Your task to perform on an android device: Open Google Maps and go to "Timeline" Image 0: 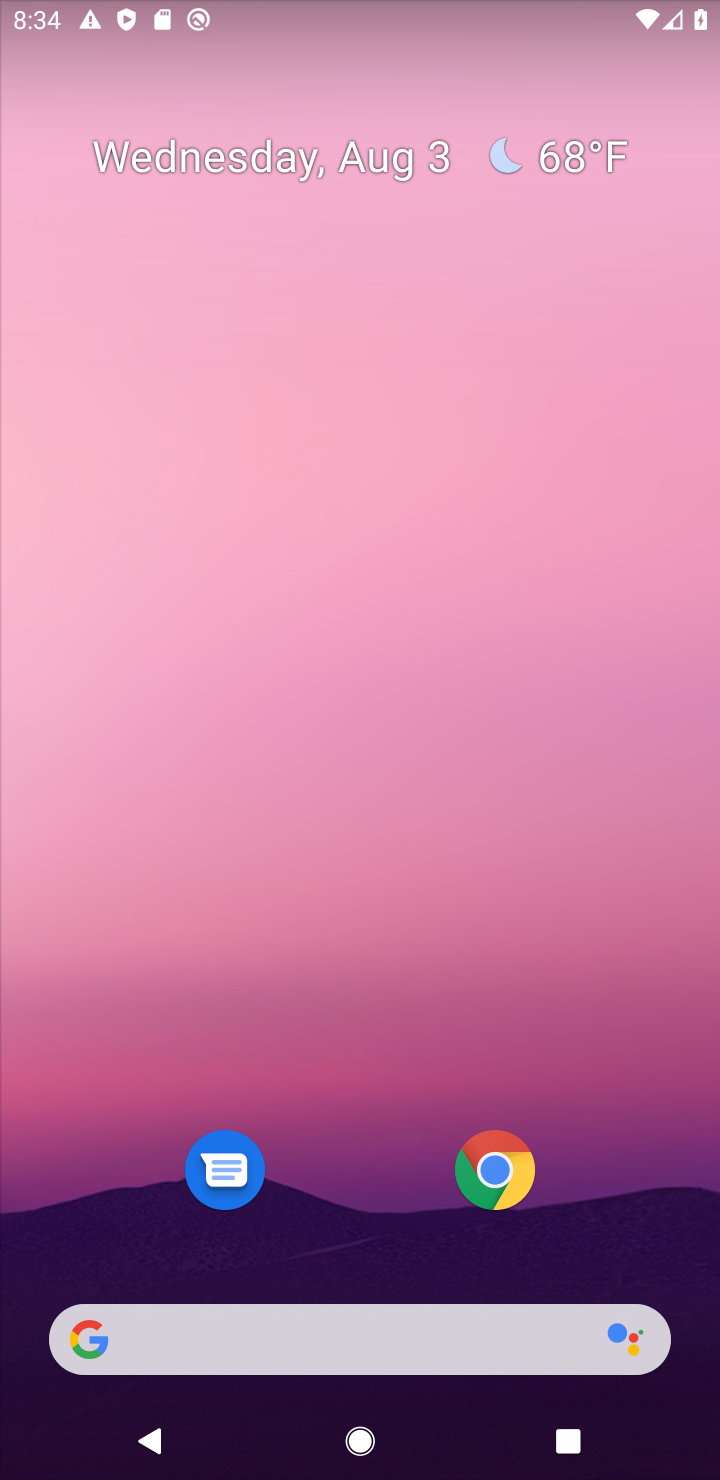
Step 0: drag from (622, 1232) to (577, 283)
Your task to perform on an android device: Open Google Maps and go to "Timeline" Image 1: 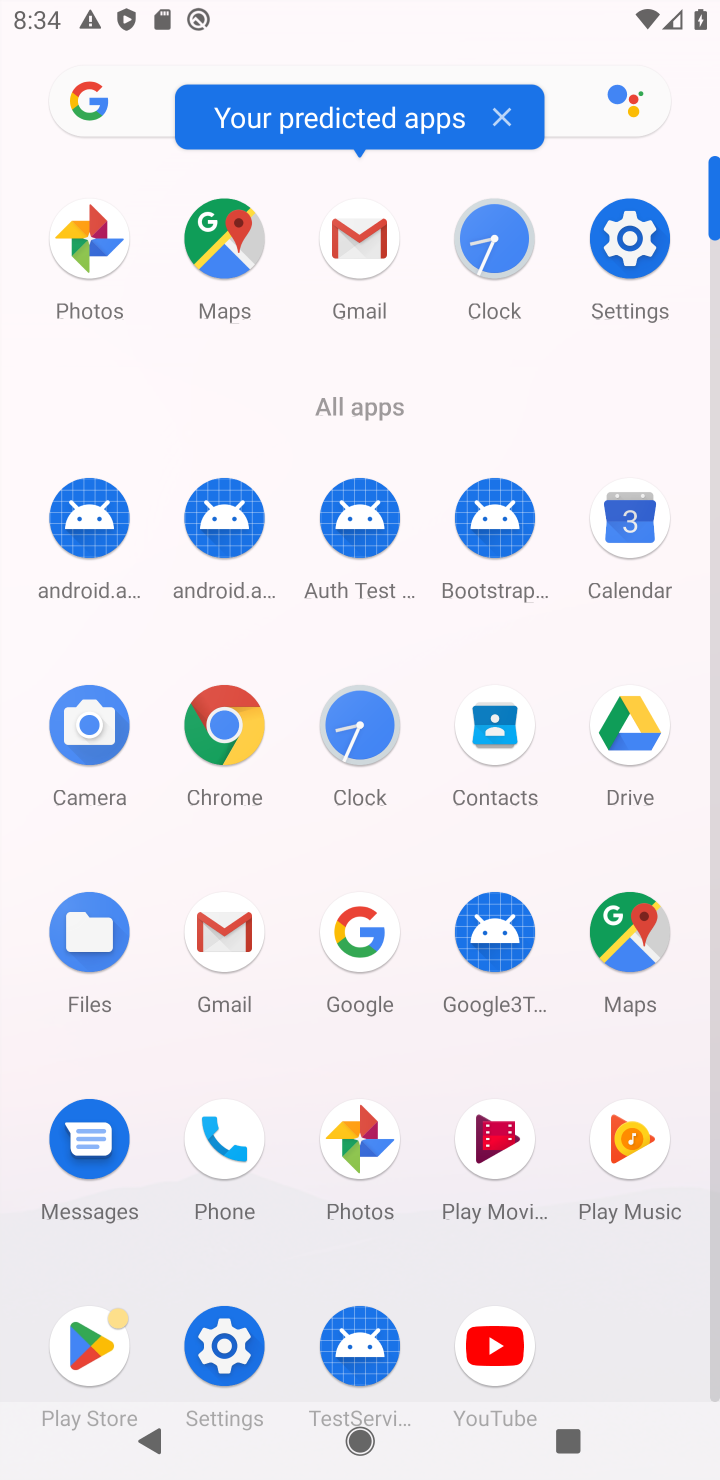
Step 1: click (619, 926)
Your task to perform on an android device: Open Google Maps and go to "Timeline" Image 2: 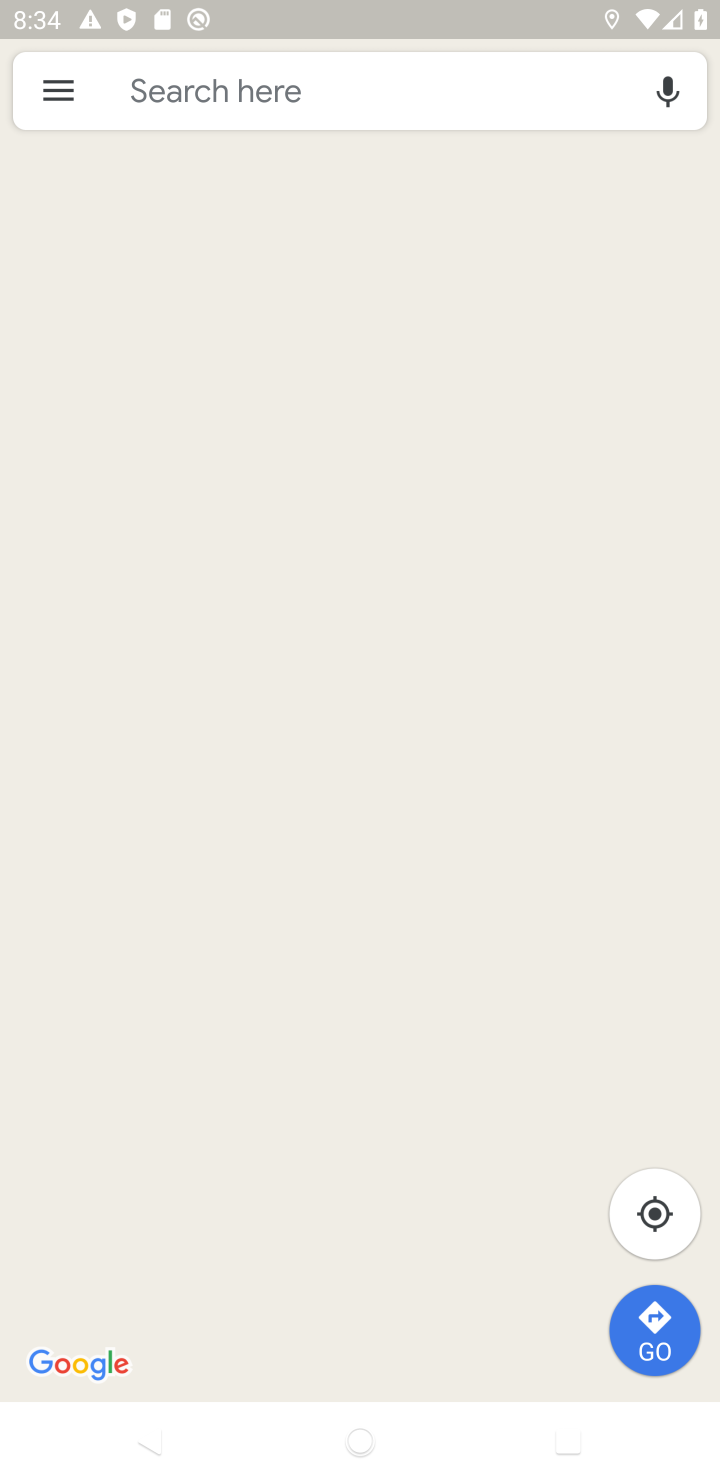
Step 2: click (47, 93)
Your task to perform on an android device: Open Google Maps and go to "Timeline" Image 3: 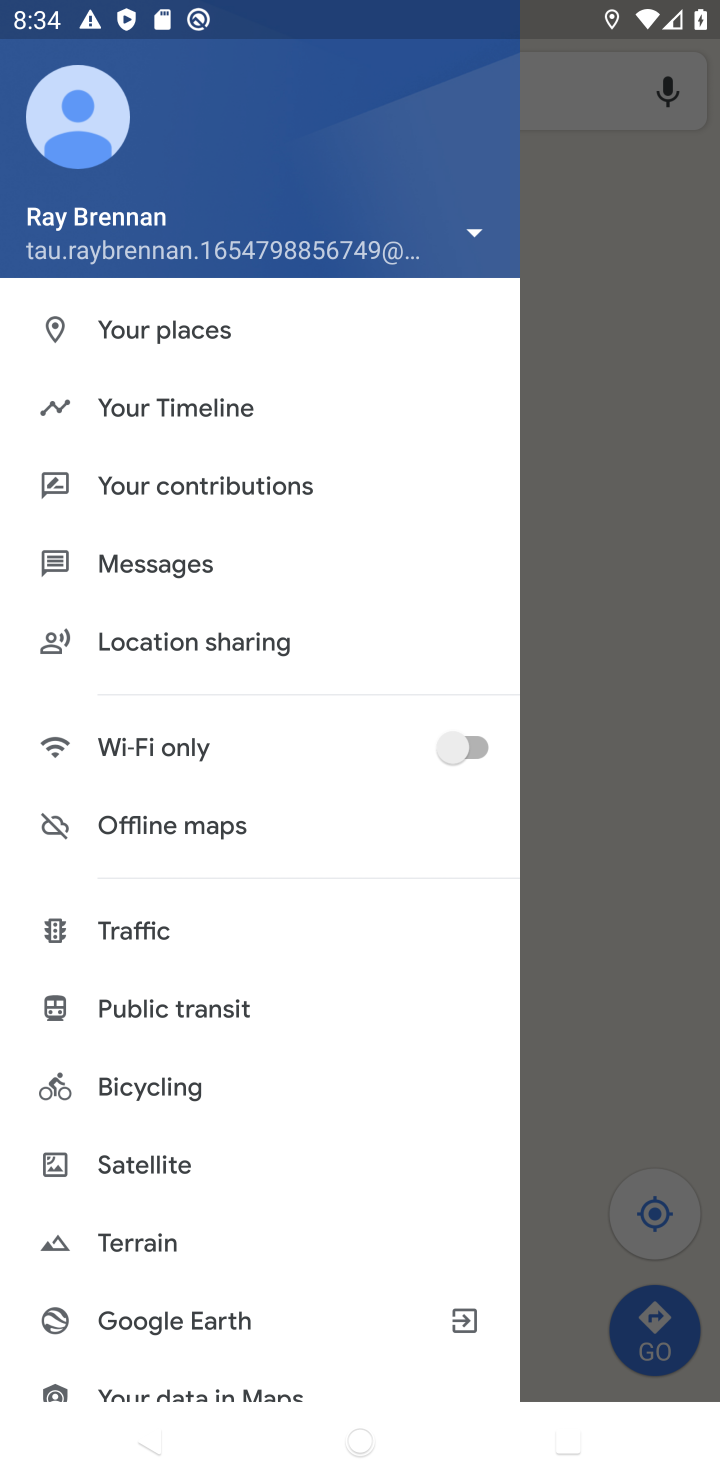
Step 3: click (180, 405)
Your task to perform on an android device: Open Google Maps and go to "Timeline" Image 4: 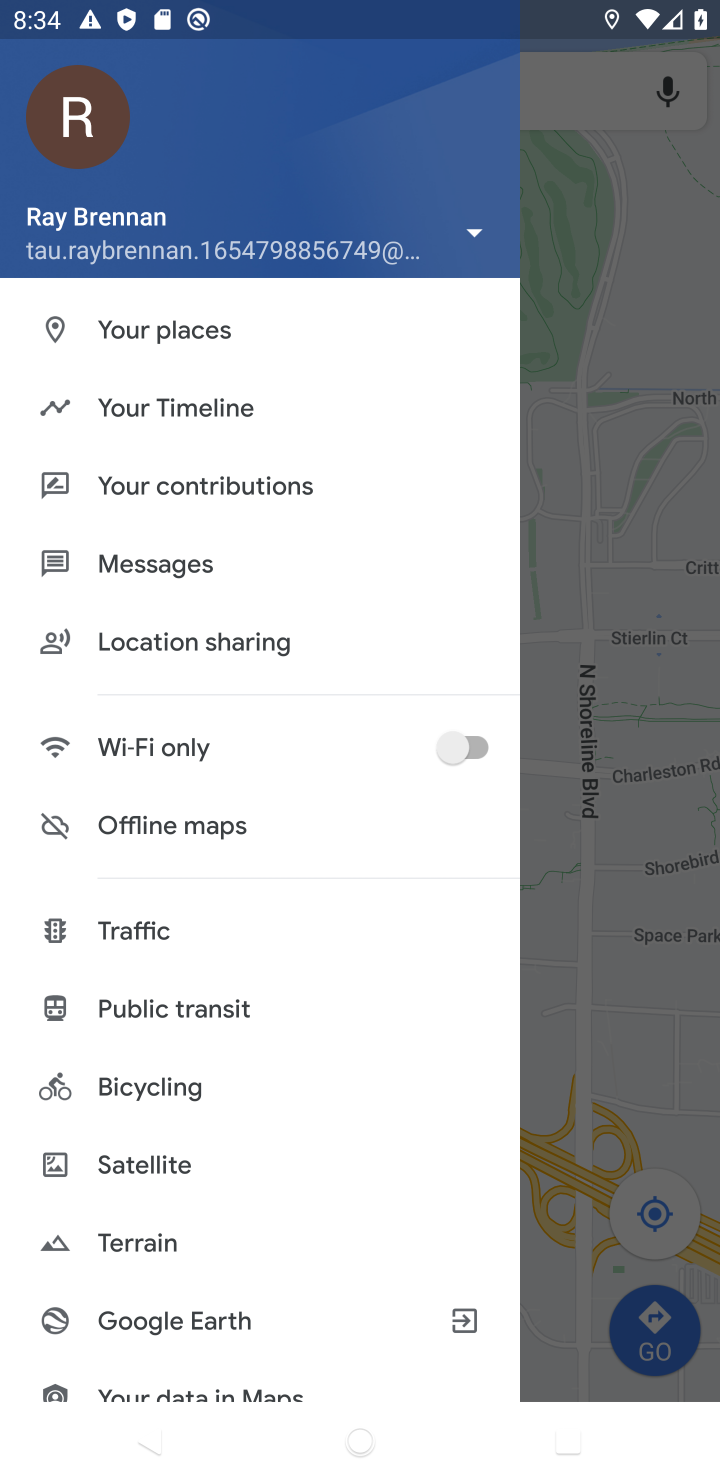
Step 4: click (190, 409)
Your task to perform on an android device: Open Google Maps and go to "Timeline" Image 5: 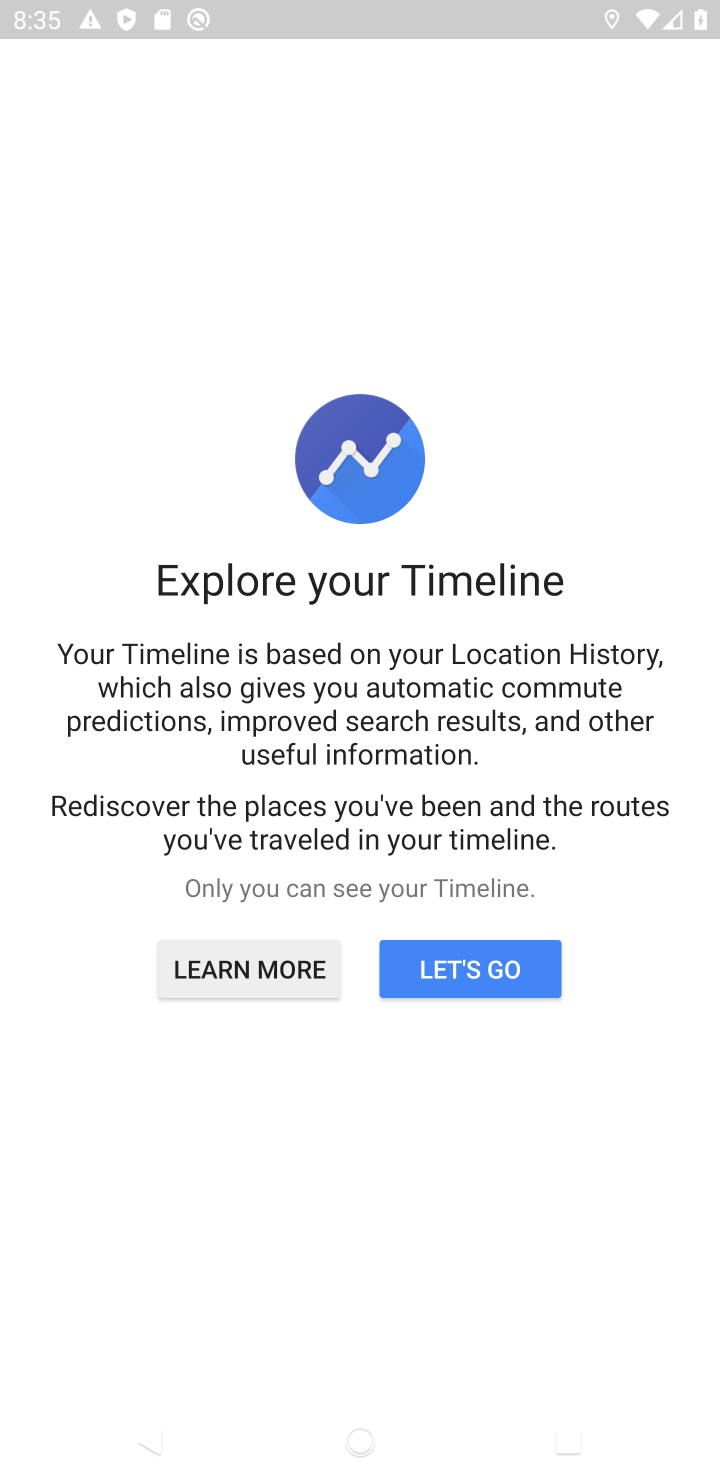
Step 5: task complete